Your task to perform on an android device: Open Google Chrome Image 0: 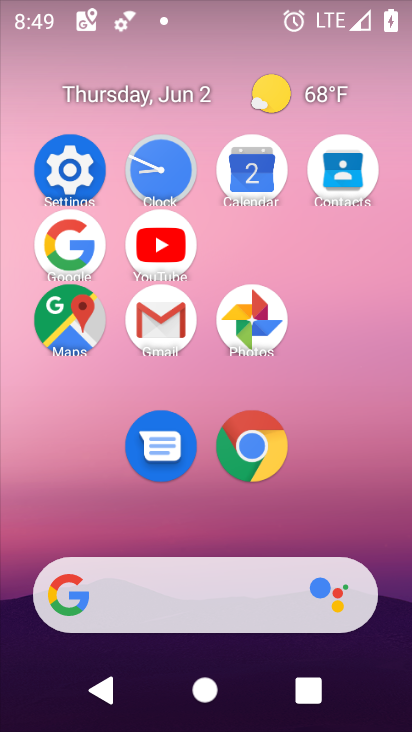
Step 0: click (267, 450)
Your task to perform on an android device: Open Google Chrome Image 1: 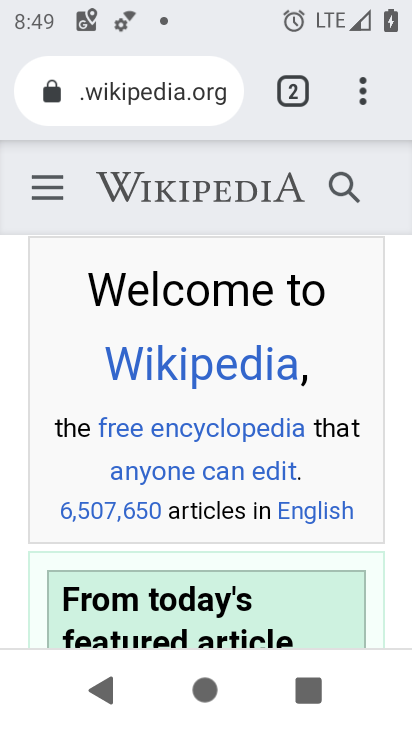
Step 1: task complete